Your task to perform on an android device: find which apps use the phone's location Image 0: 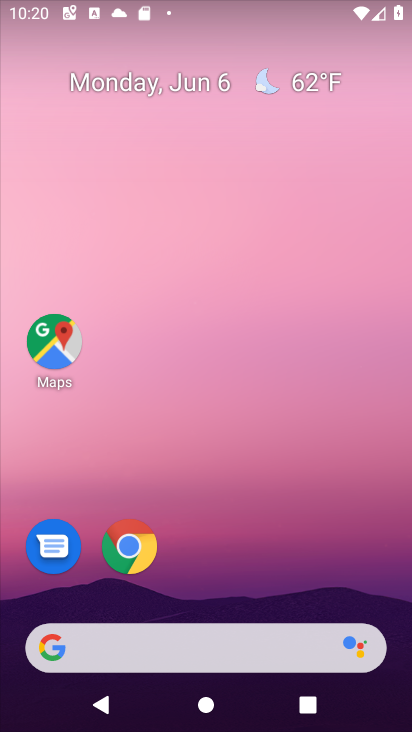
Step 0: drag from (398, 651) to (264, 102)
Your task to perform on an android device: find which apps use the phone's location Image 1: 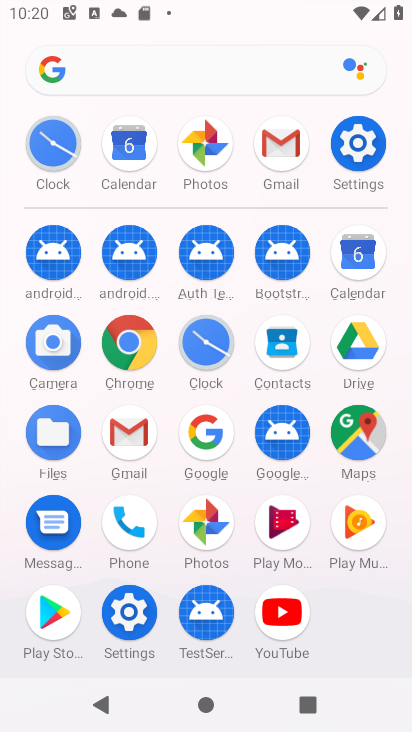
Step 1: click (127, 610)
Your task to perform on an android device: find which apps use the phone's location Image 2: 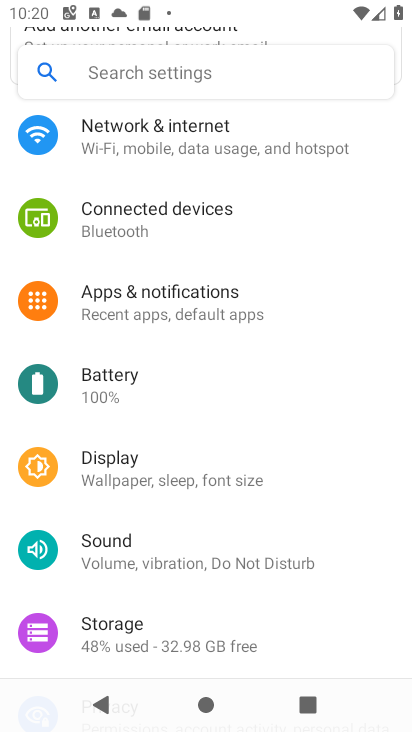
Step 2: drag from (343, 571) to (346, 298)
Your task to perform on an android device: find which apps use the phone's location Image 3: 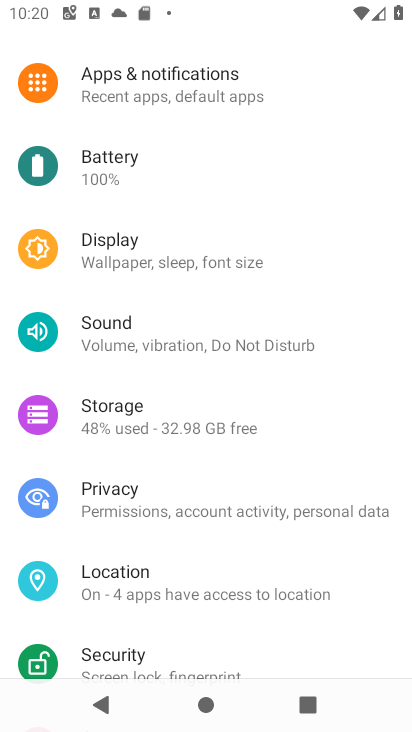
Step 3: click (114, 580)
Your task to perform on an android device: find which apps use the phone's location Image 4: 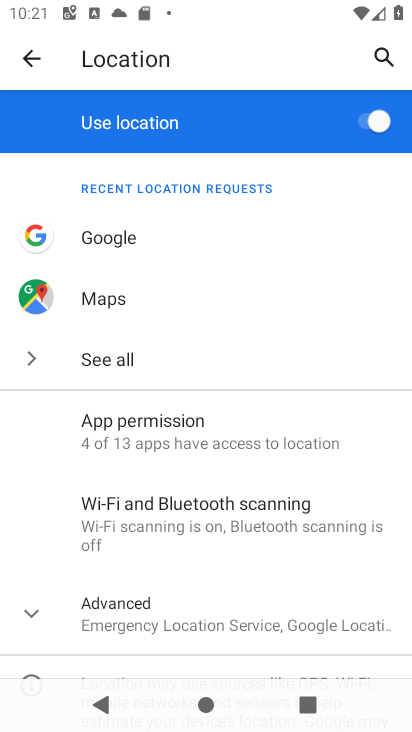
Step 4: click (155, 427)
Your task to perform on an android device: find which apps use the phone's location Image 5: 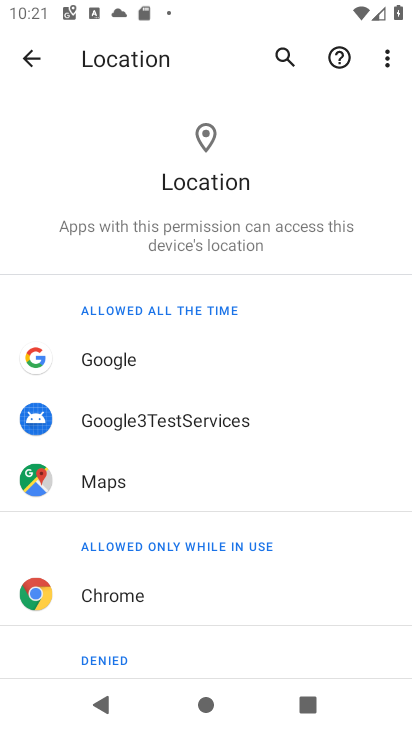
Step 5: drag from (219, 636) to (266, 181)
Your task to perform on an android device: find which apps use the phone's location Image 6: 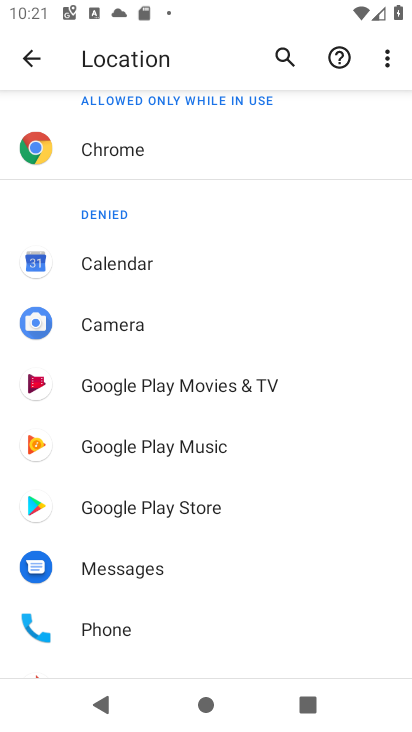
Step 6: click (122, 630)
Your task to perform on an android device: find which apps use the phone's location Image 7: 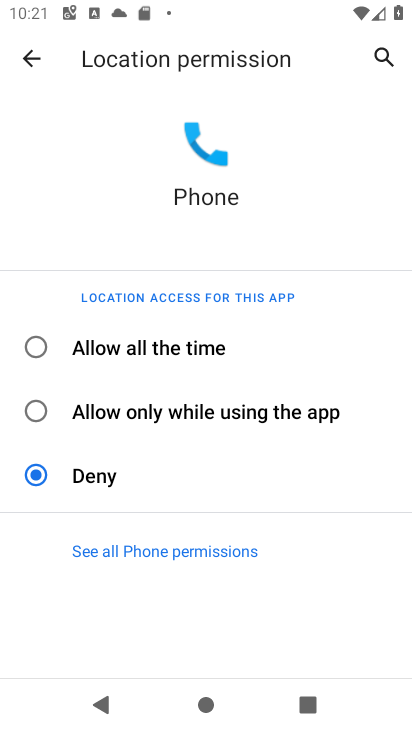
Step 7: task complete